Your task to perform on an android device: Clear the cart on newegg. Search for "razer kraken" on newegg, select the first entry, and add it to the cart. Image 0: 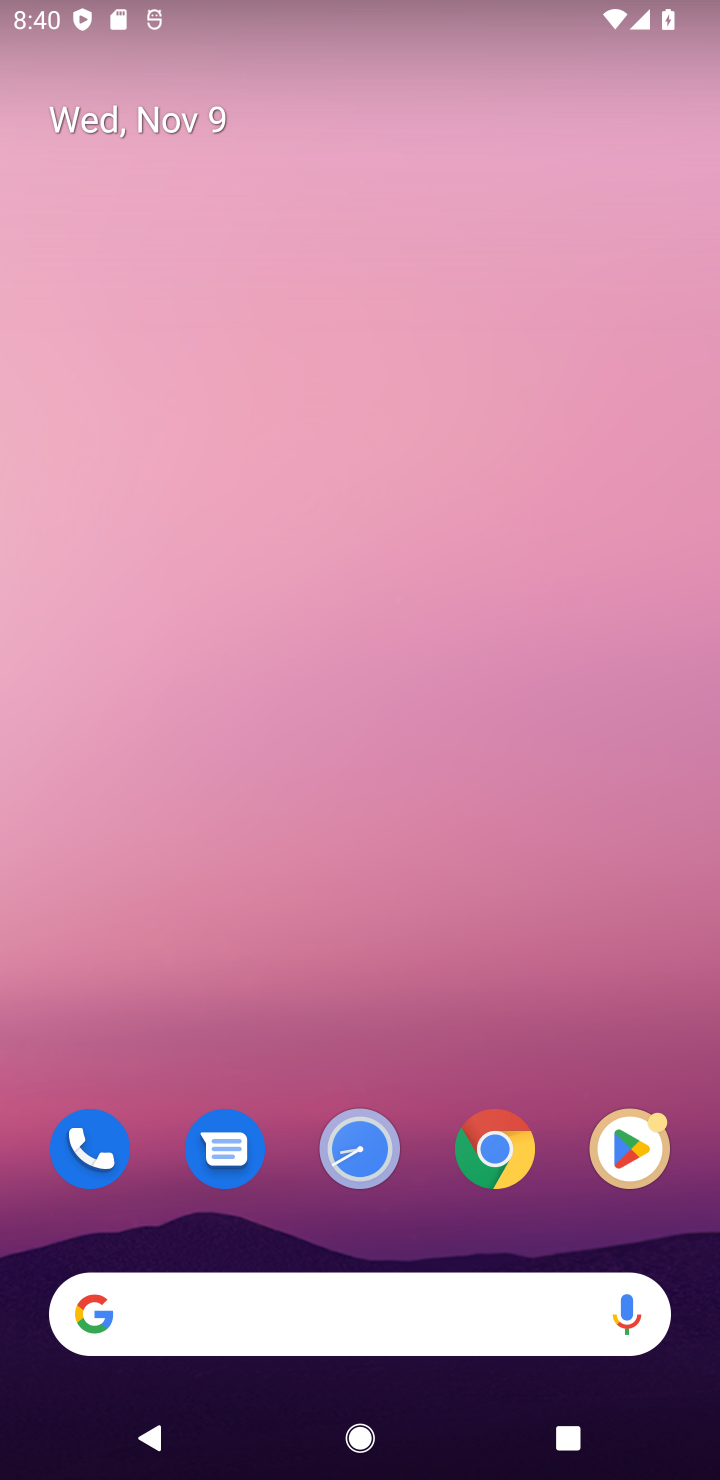
Step 0: click (483, 1158)
Your task to perform on an android device: Clear the cart on newegg. Search for "razer kraken" on newegg, select the first entry, and add it to the cart. Image 1: 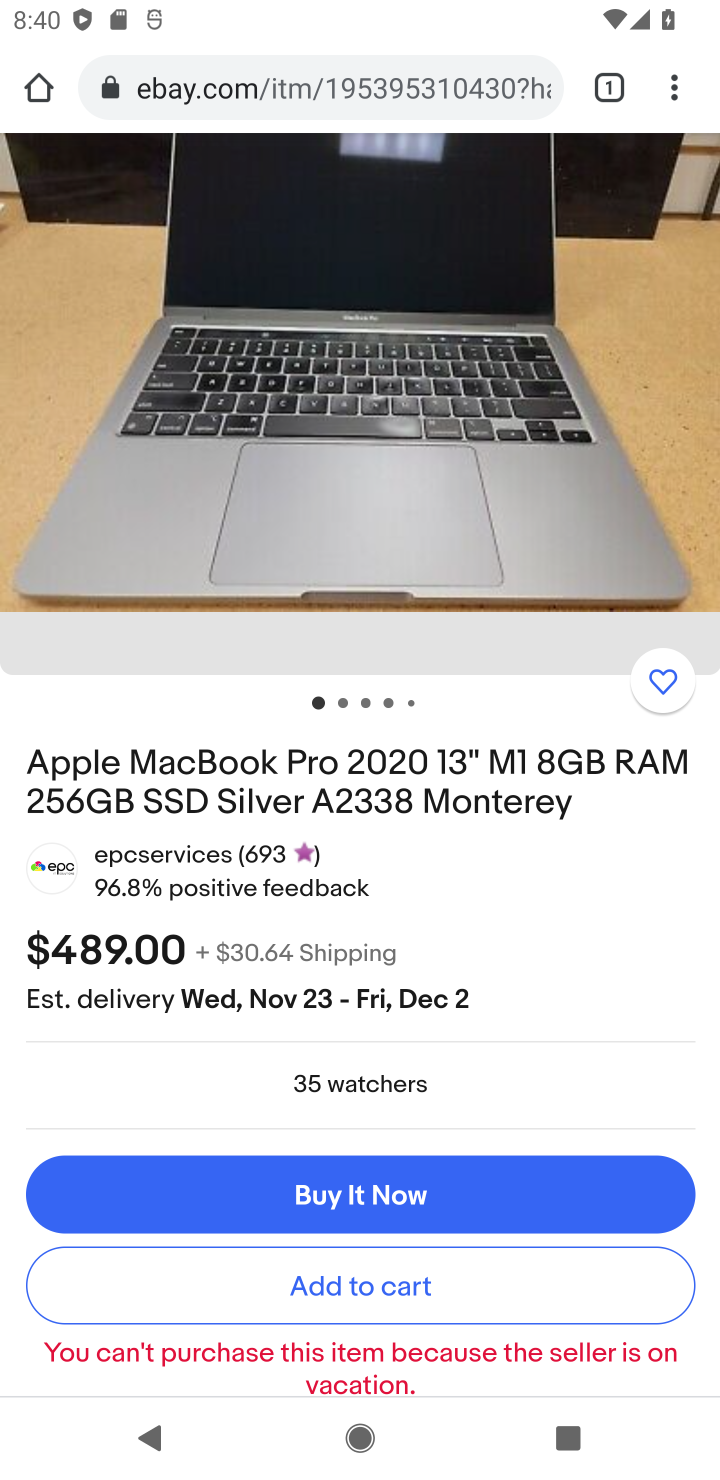
Step 1: click (623, 74)
Your task to perform on an android device: Clear the cart on newegg. Search for "razer kraken" on newegg, select the first entry, and add it to the cart. Image 2: 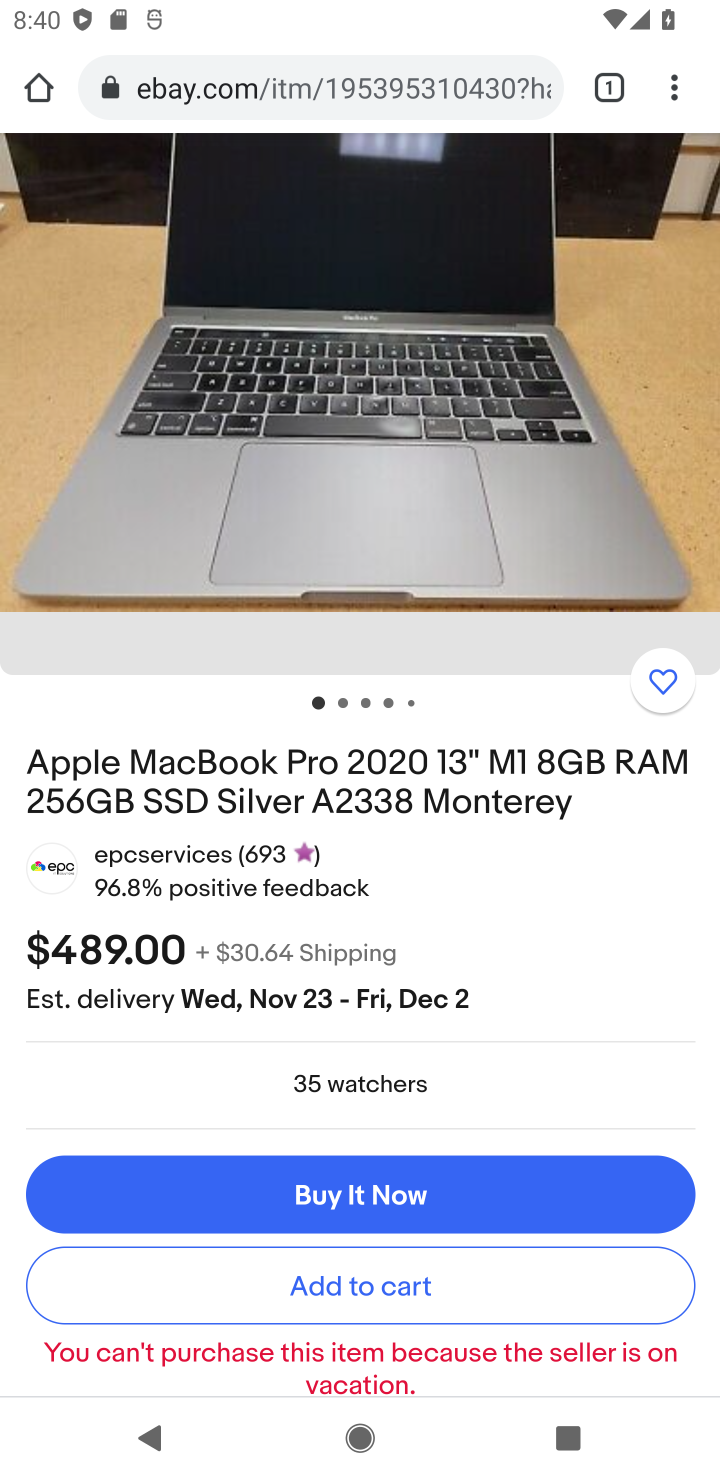
Step 2: click (623, 74)
Your task to perform on an android device: Clear the cart on newegg. Search for "razer kraken" on newegg, select the first entry, and add it to the cart. Image 3: 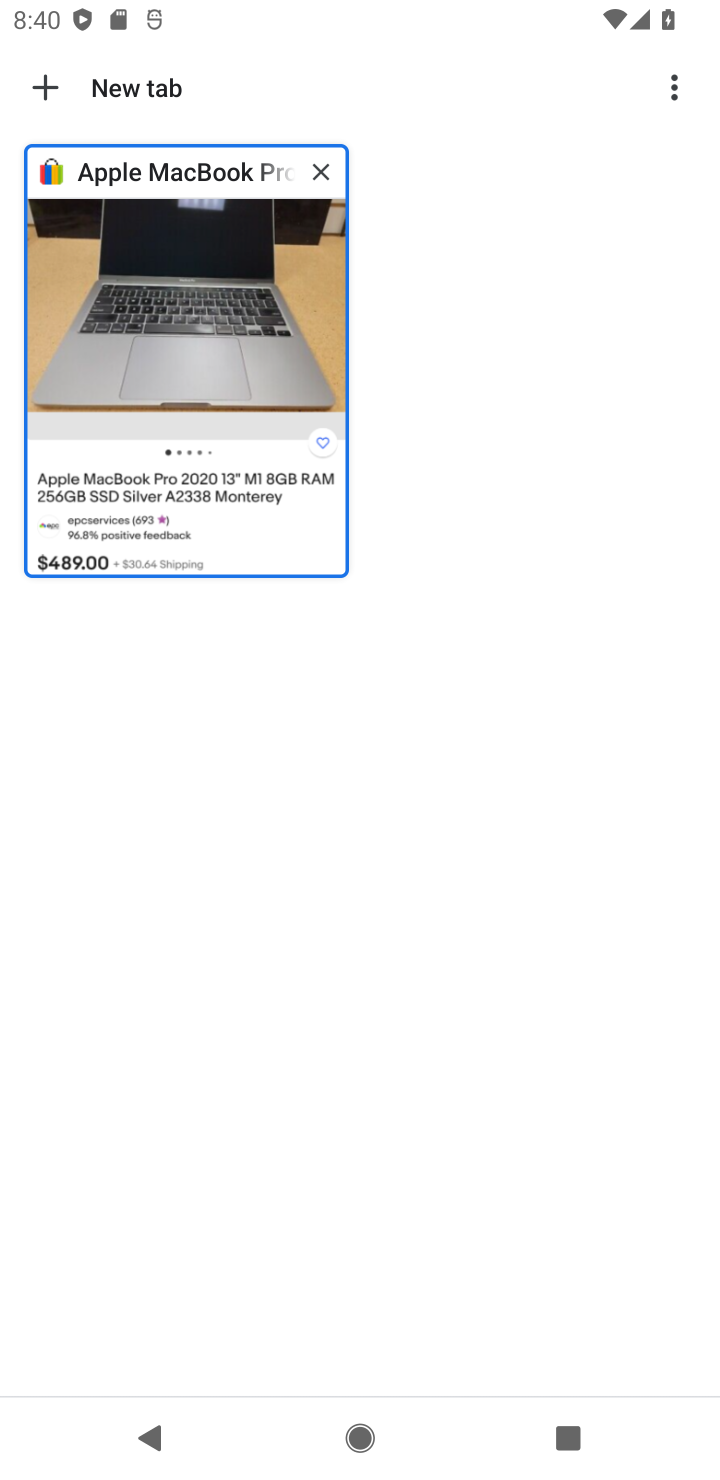
Step 3: click (42, 94)
Your task to perform on an android device: Clear the cart on newegg. Search for "razer kraken" on newegg, select the first entry, and add it to the cart. Image 4: 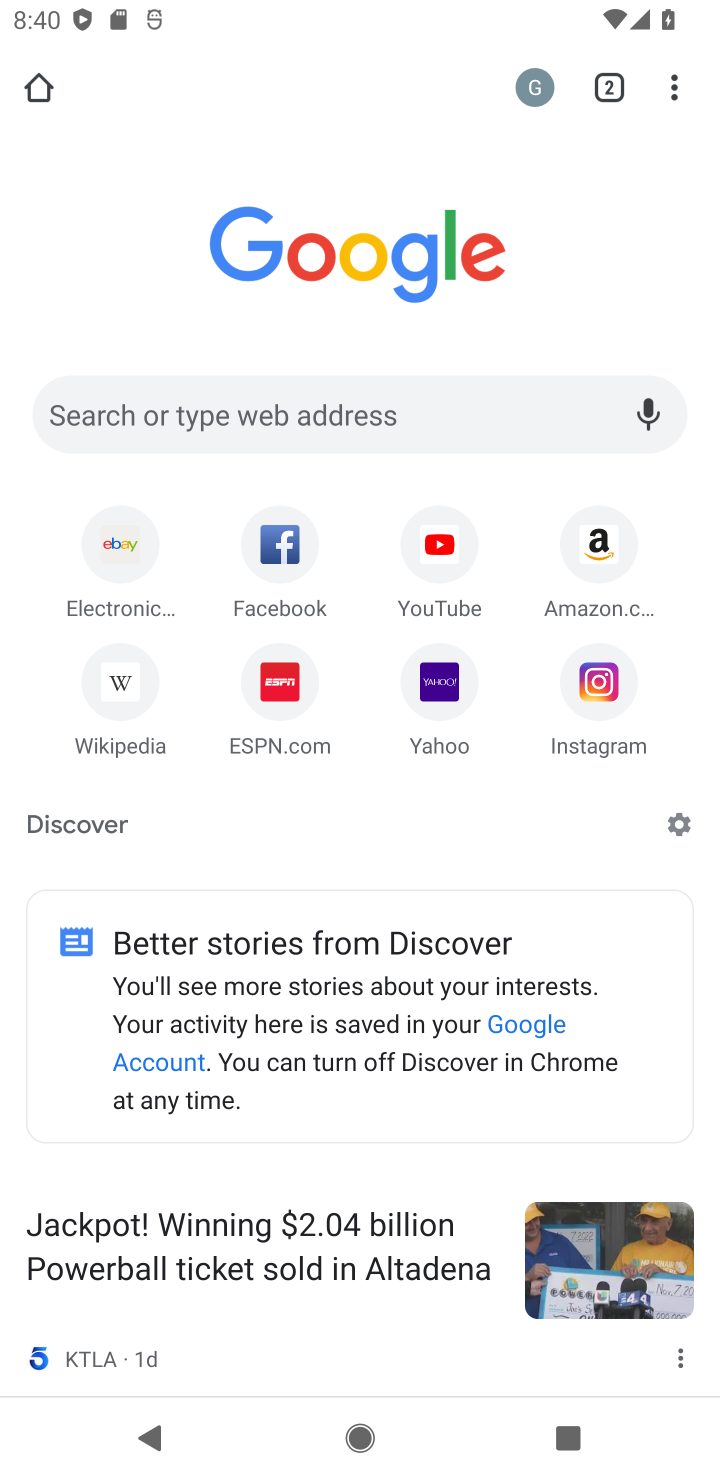
Step 4: click (450, 424)
Your task to perform on an android device: Clear the cart on newegg. Search for "razer kraken" on newegg, select the first entry, and add it to the cart. Image 5: 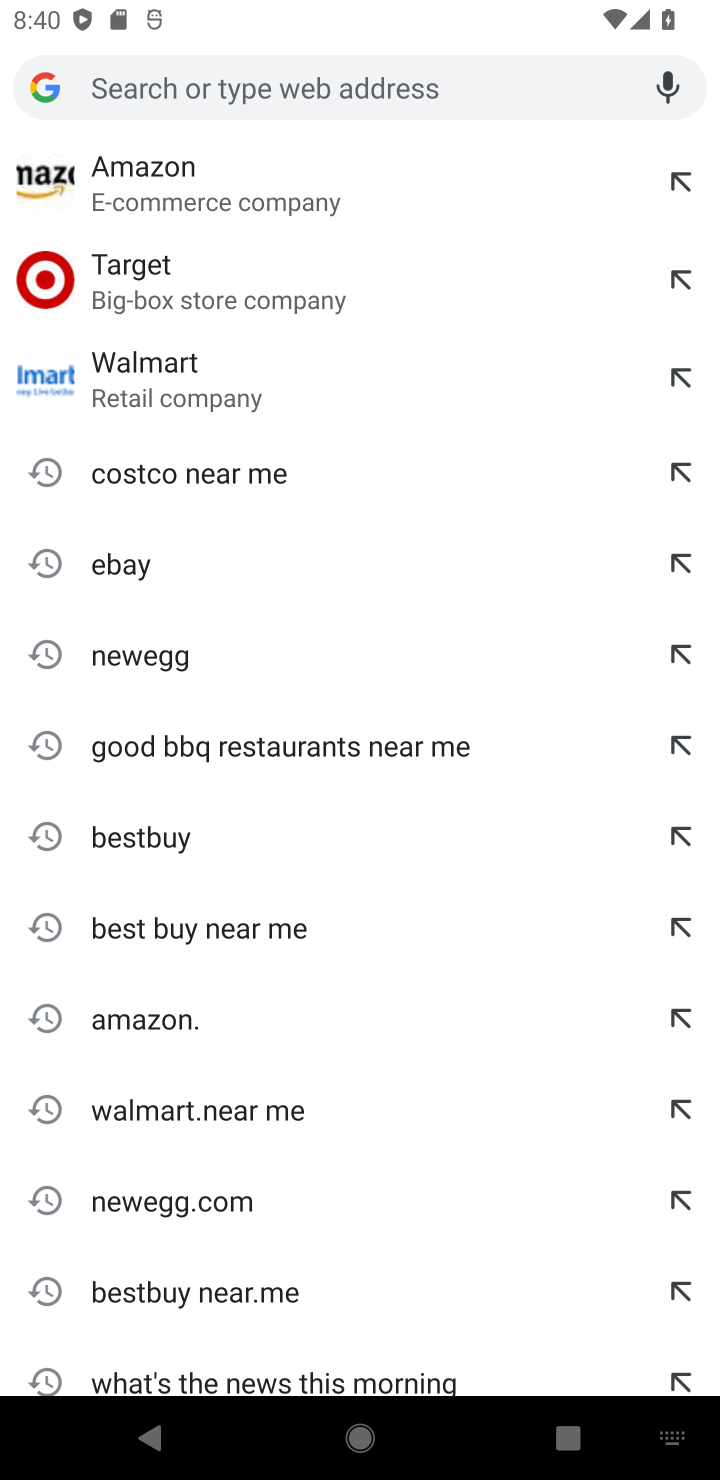
Step 5: click (157, 652)
Your task to perform on an android device: Clear the cart on newegg. Search for "razer kraken" on newegg, select the first entry, and add it to the cart. Image 6: 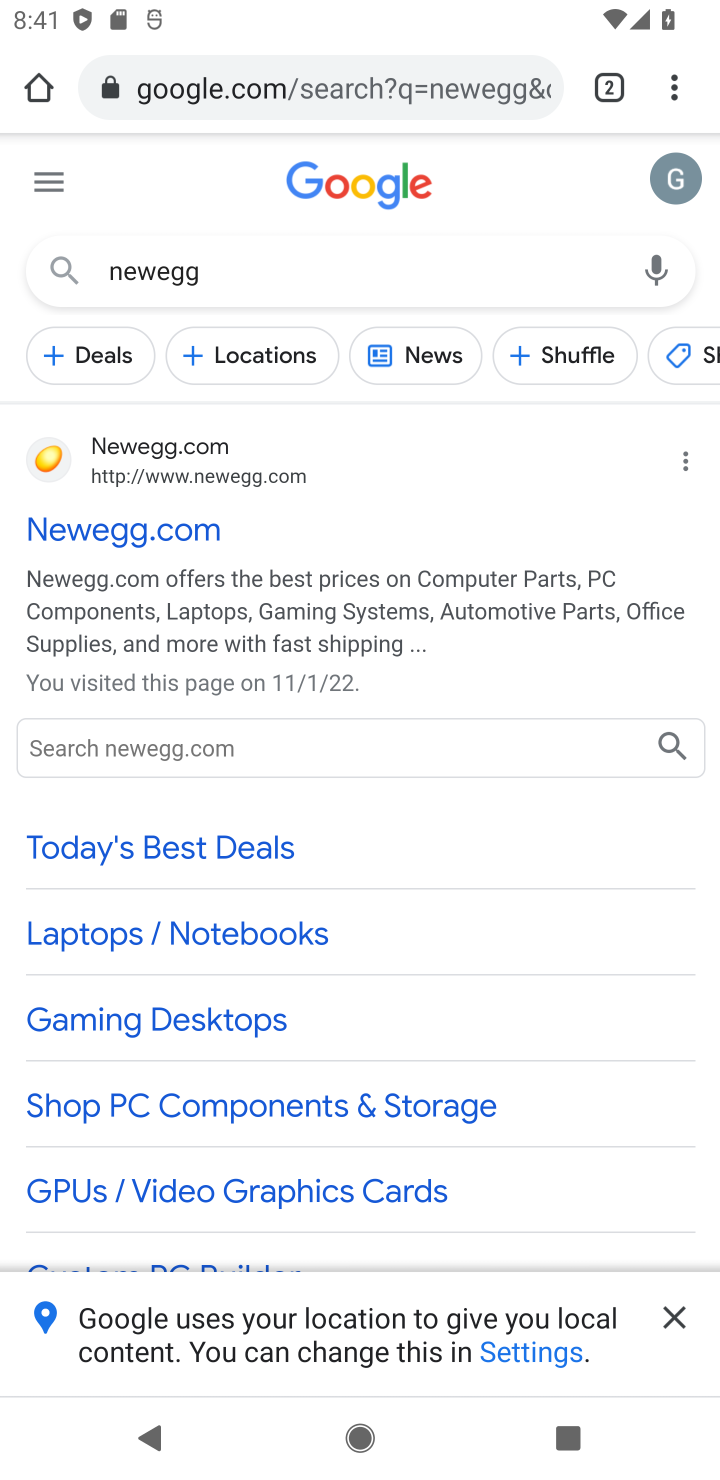
Step 6: click (104, 735)
Your task to perform on an android device: Clear the cart on newegg. Search for "razer kraken" on newegg, select the first entry, and add it to the cart. Image 7: 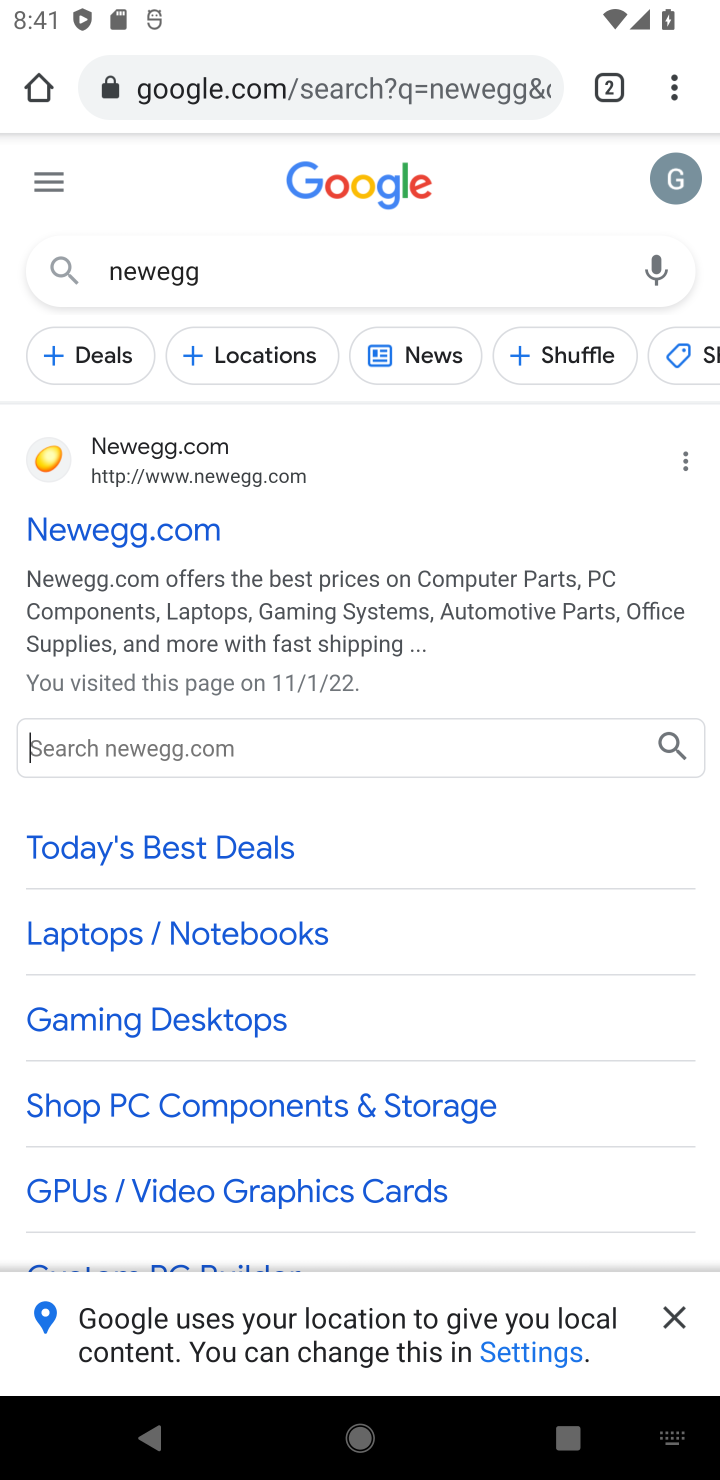
Step 7: type "razer kraken"
Your task to perform on an android device: Clear the cart on newegg. Search for "razer kraken" on newegg, select the first entry, and add it to the cart. Image 8: 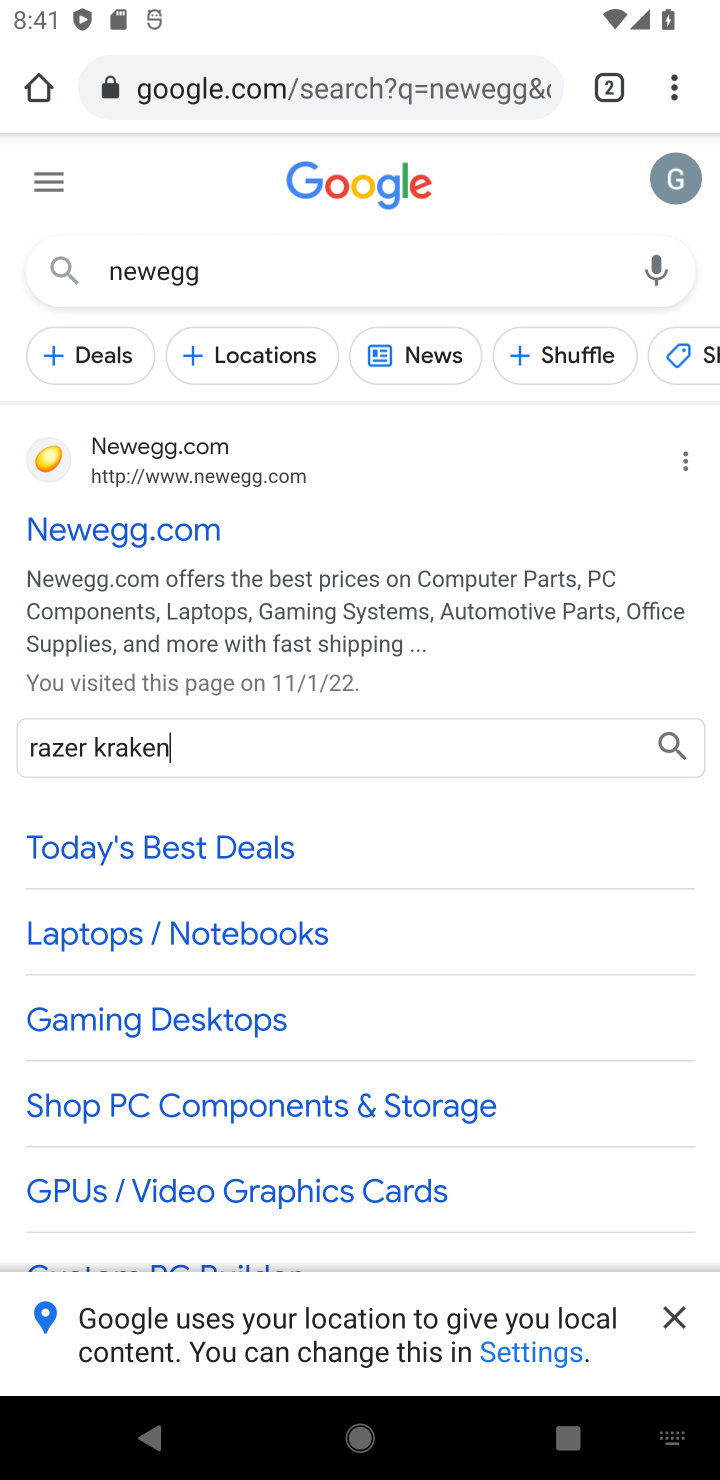
Step 8: click (669, 742)
Your task to perform on an android device: Clear the cart on newegg. Search for "razer kraken" on newegg, select the first entry, and add it to the cart. Image 9: 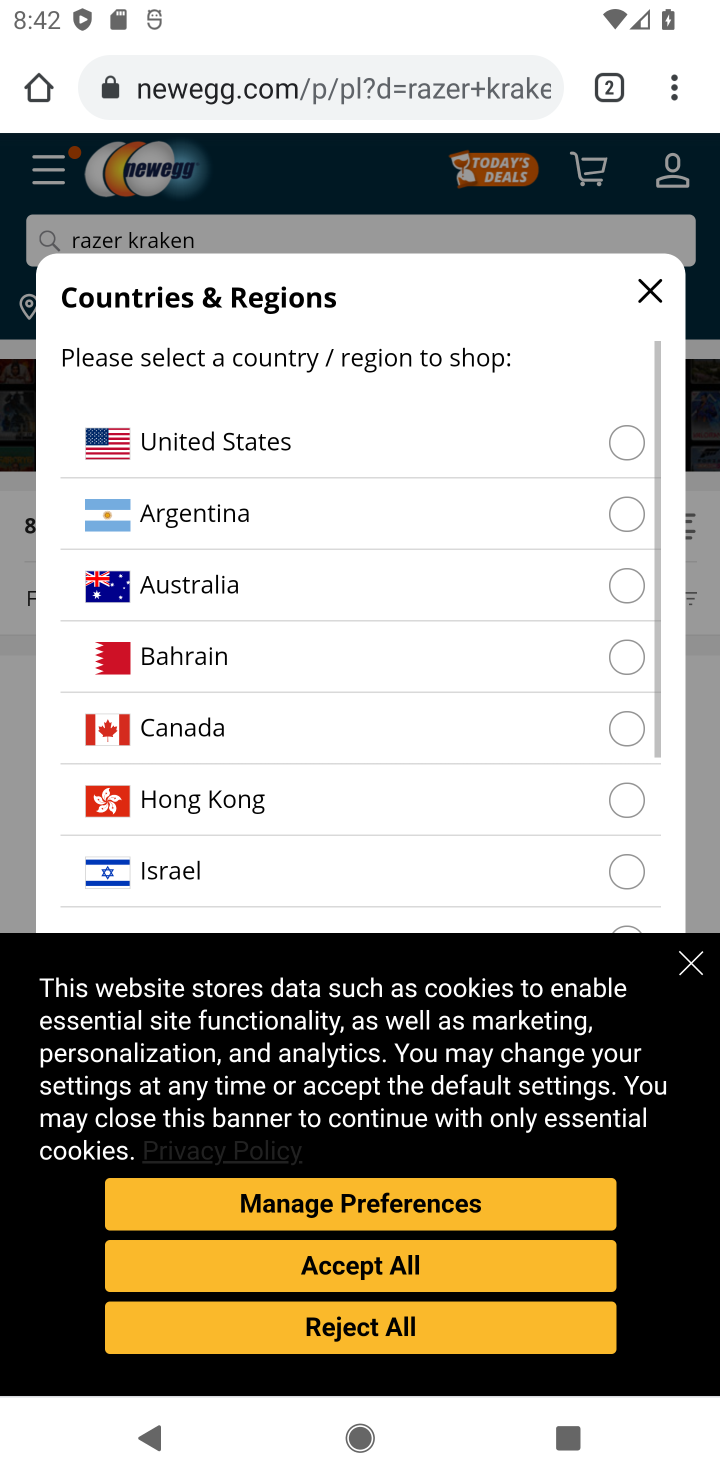
Step 9: click (423, 1322)
Your task to perform on an android device: Clear the cart on newegg. Search for "razer kraken" on newegg, select the first entry, and add it to the cart. Image 10: 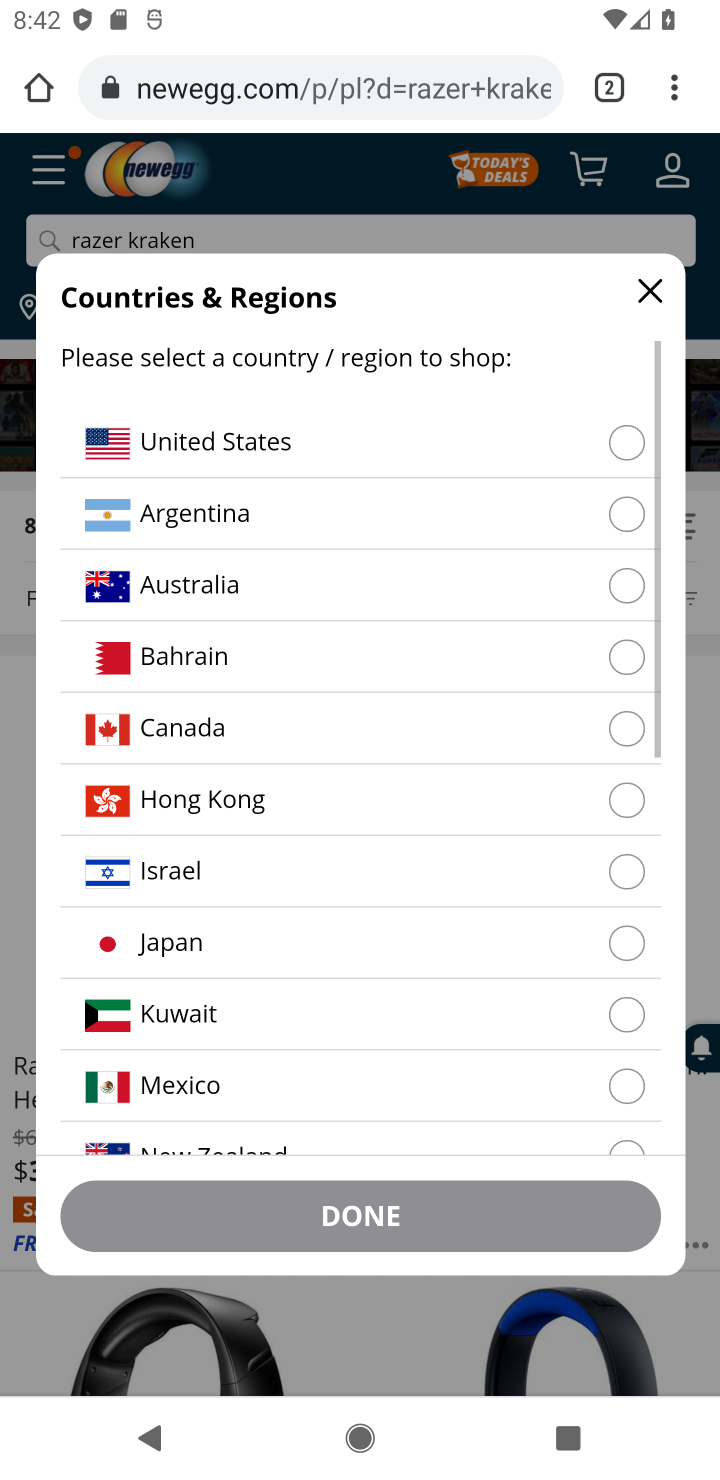
Step 10: click (630, 450)
Your task to perform on an android device: Clear the cart on newegg. Search for "razer kraken" on newegg, select the first entry, and add it to the cart. Image 11: 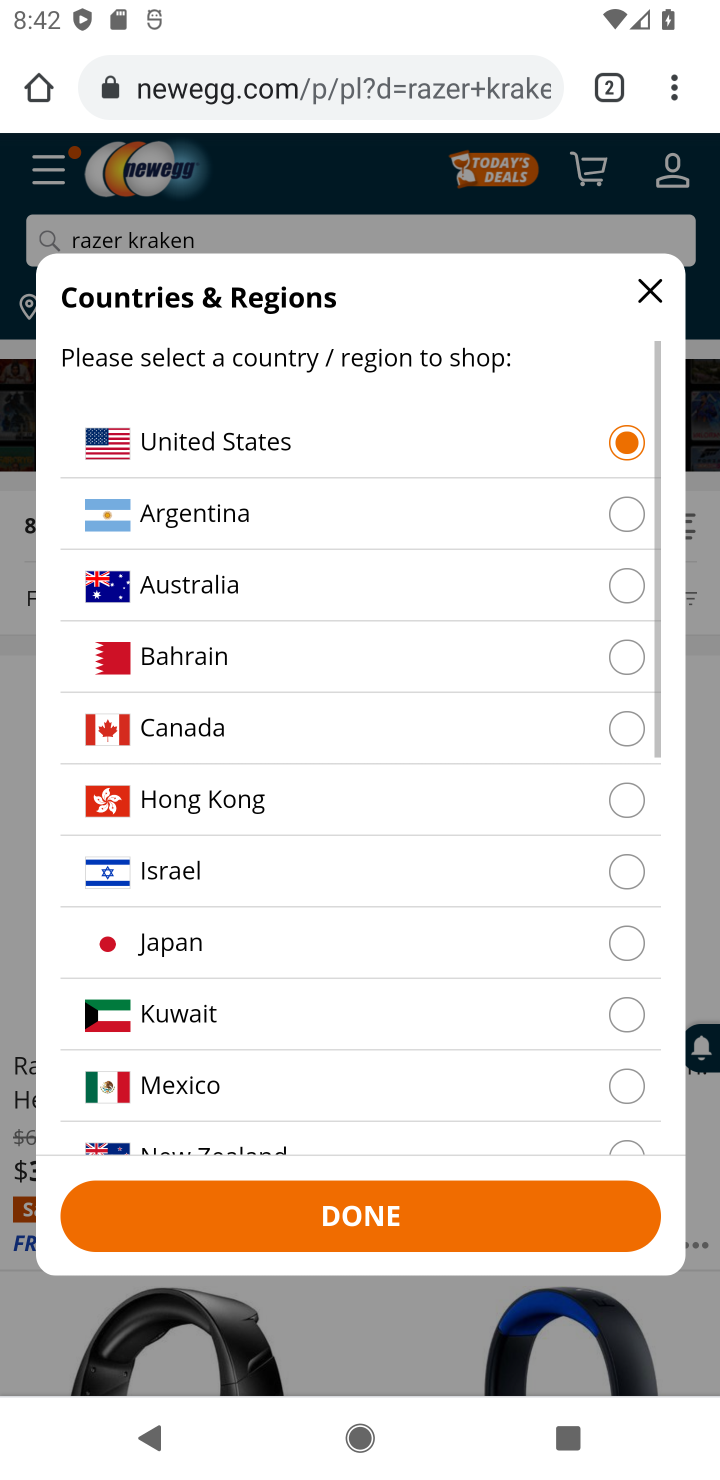
Step 11: click (336, 1233)
Your task to perform on an android device: Clear the cart on newegg. Search for "razer kraken" on newegg, select the first entry, and add it to the cart. Image 12: 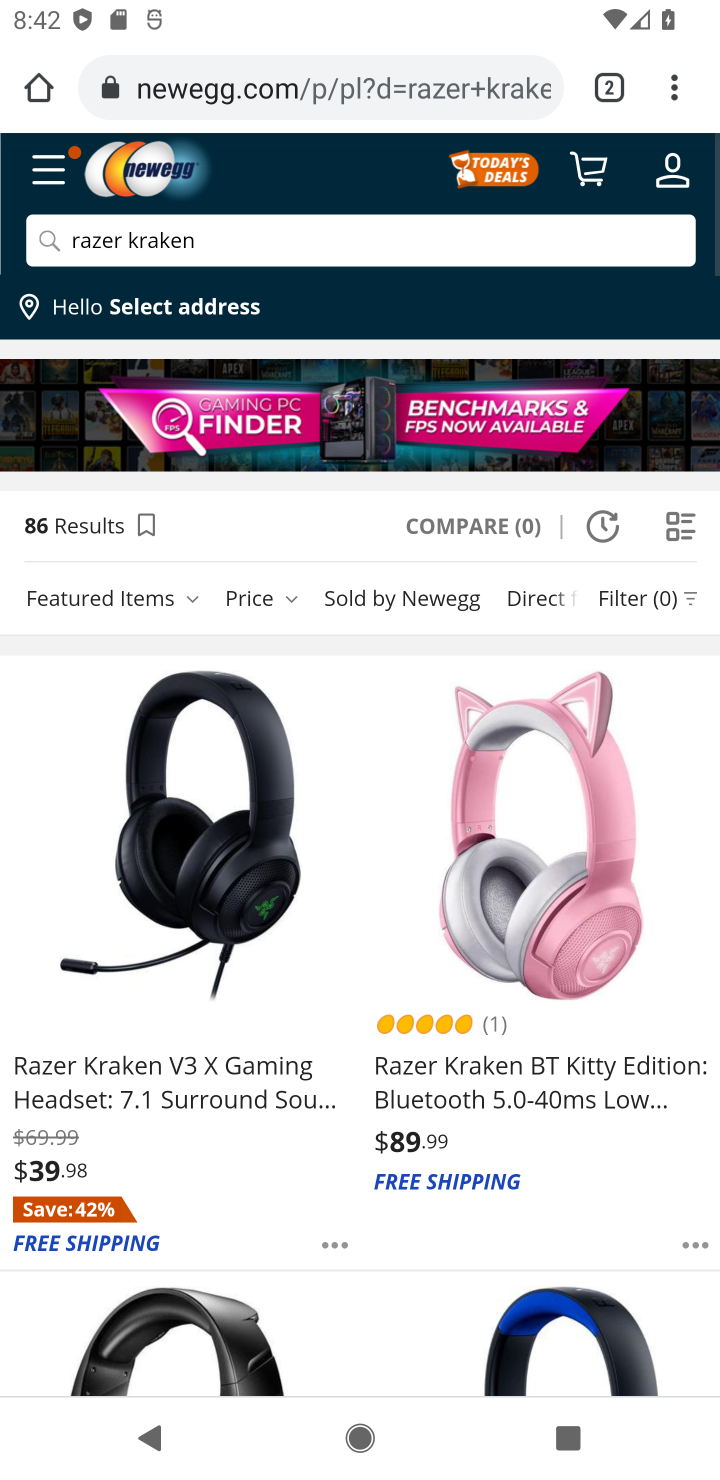
Step 12: click (78, 1096)
Your task to perform on an android device: Clear the cart on newegg. Search for "razer kraken" on newegg, select the first entry, and add it to the cart. Image 13: 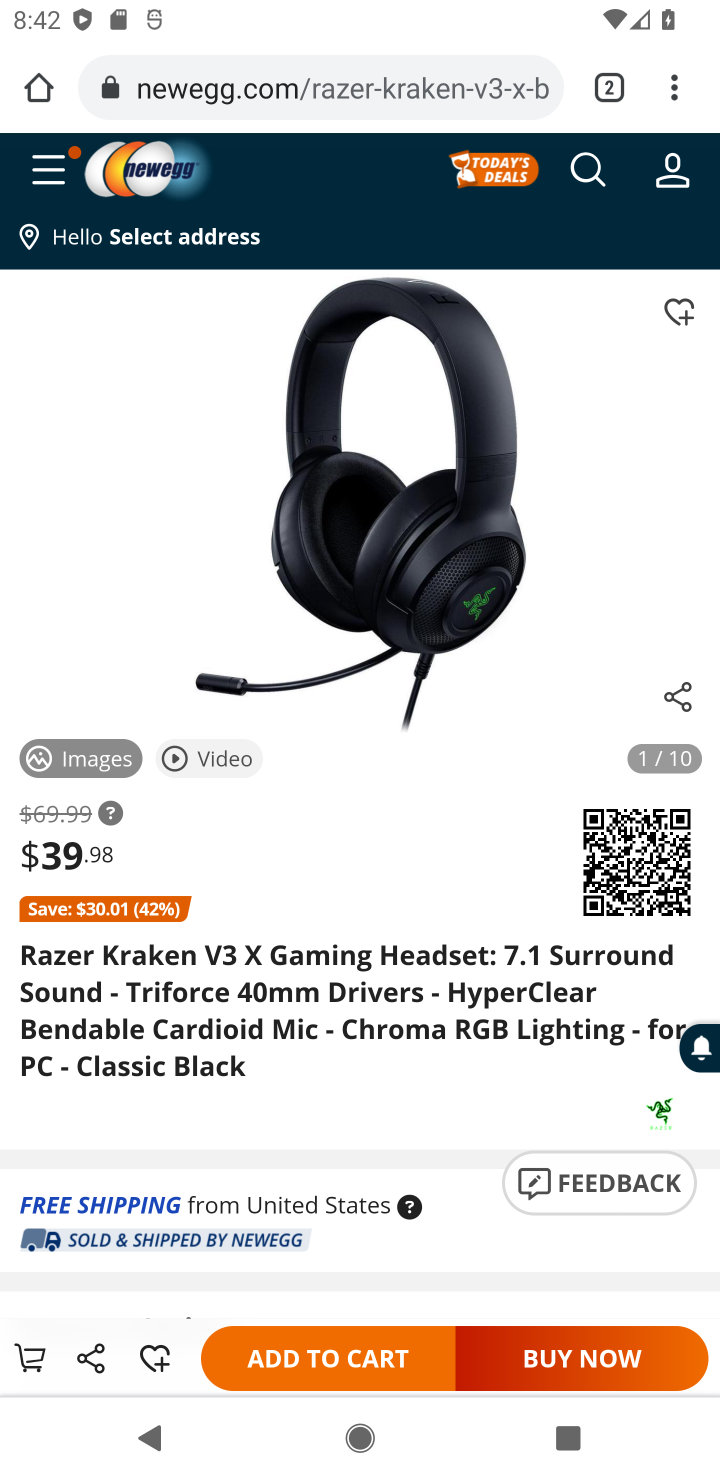
Step 13: click (343, 1369)
Your task to perform on an android device: Clear the cart on newegg. Search for "razer kraken" on newegg, select the first entry, and add it to the cart. Image 14: 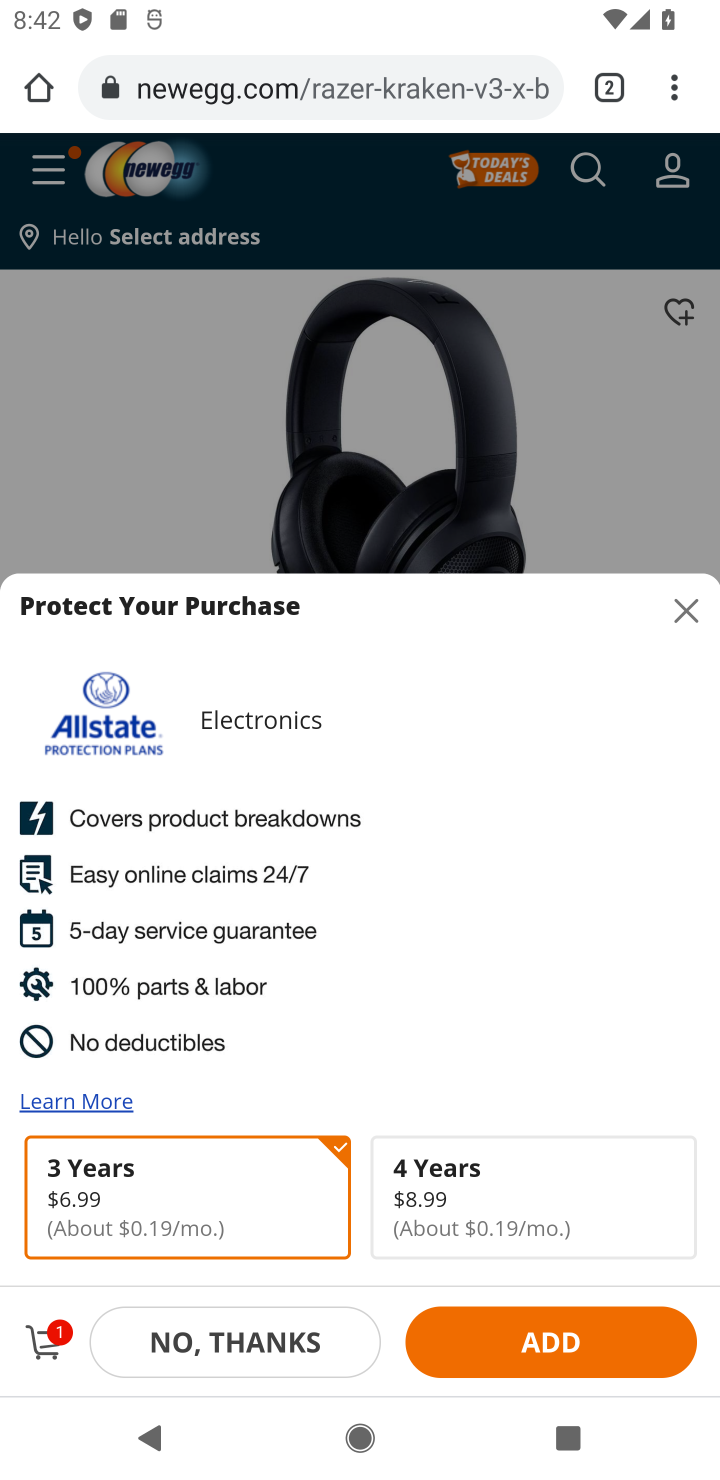
Step 14: task complete